Your task to perform on an android device: change notification settings in the gmail app Image 0: 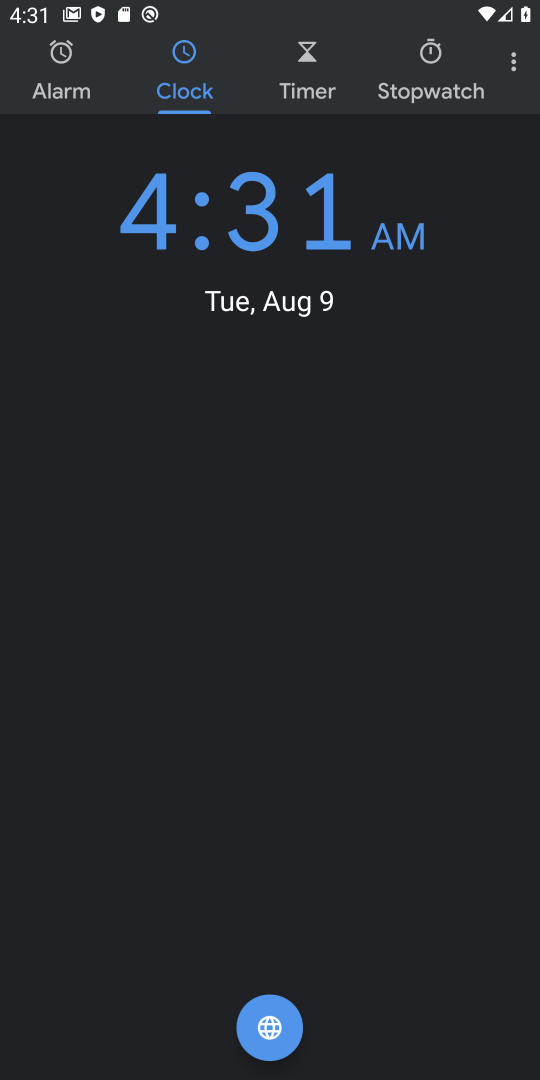
Step 0: press back button
Your task to perform on an android device: change notification settings in the gmail app Image 1: 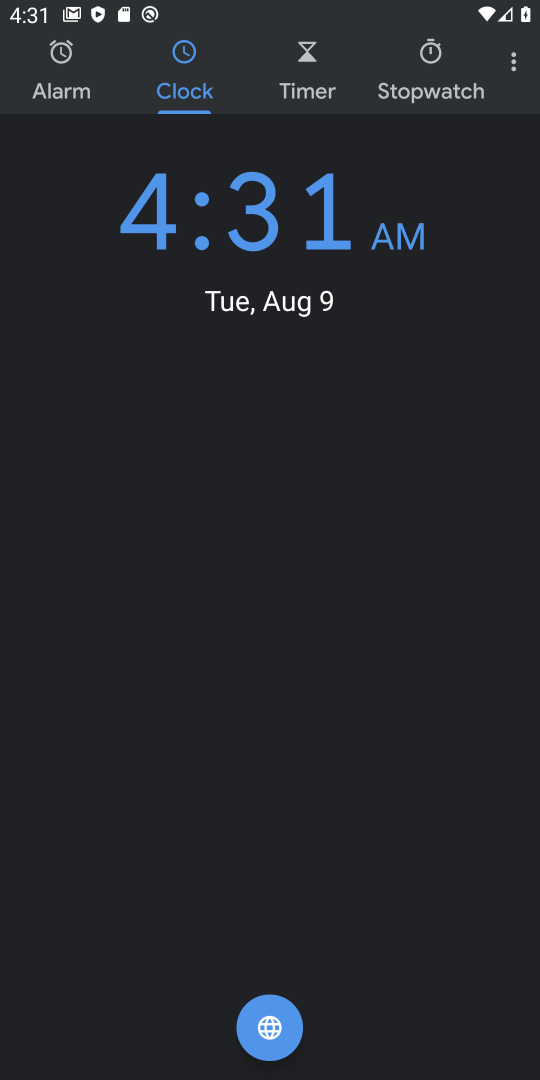
Step 1: press back button
Your task to perform on an android device: change notification settings in the gmail app Image 2: 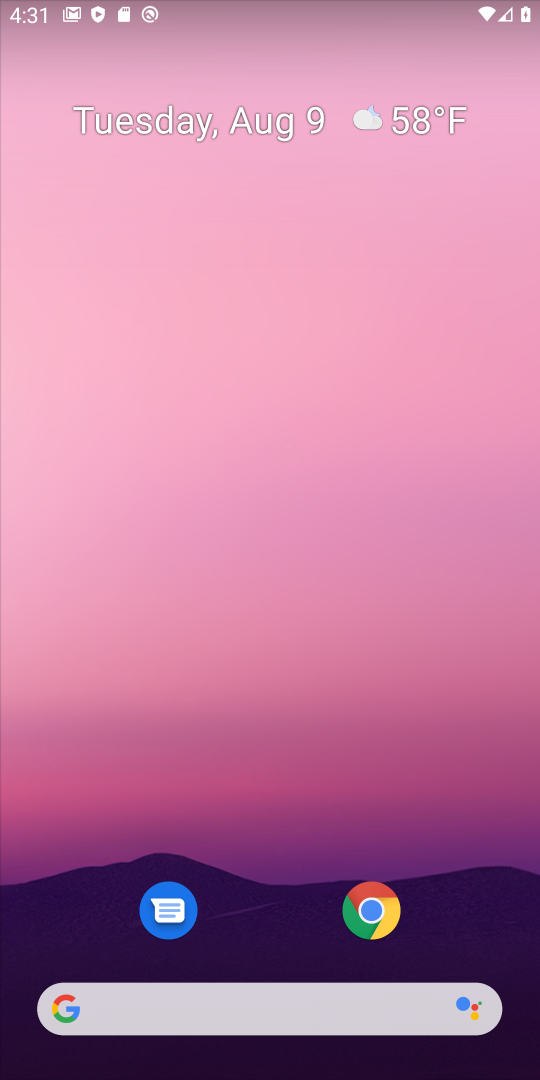
Step 2: press back button
Your task to perform on an android device: change notification settings in the gmail app Image 3: 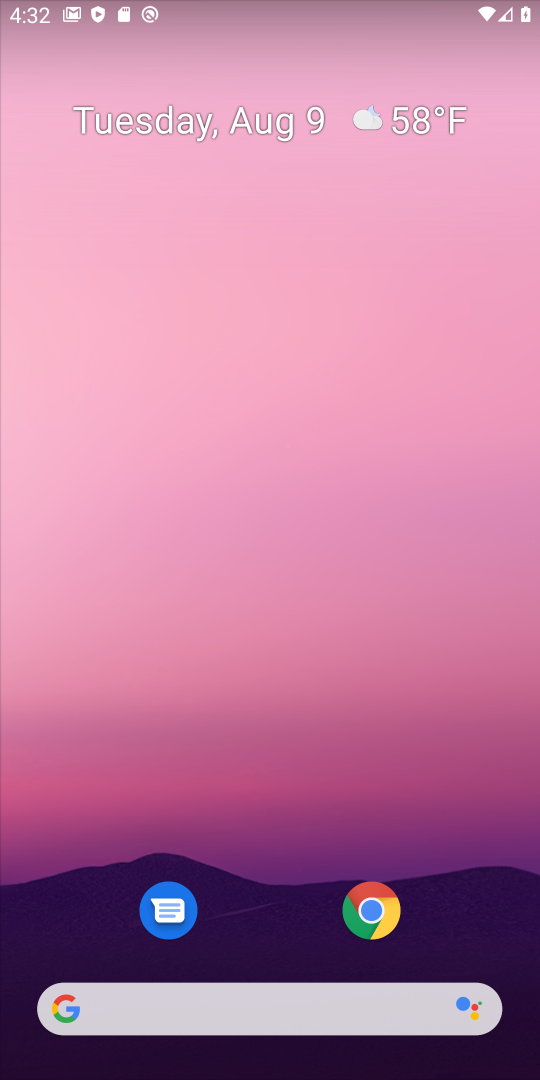
Step 3: drag from (303, 882) to (314, 480)
Your task to perform on an android device: change notification settings in the gmail app Image 4: 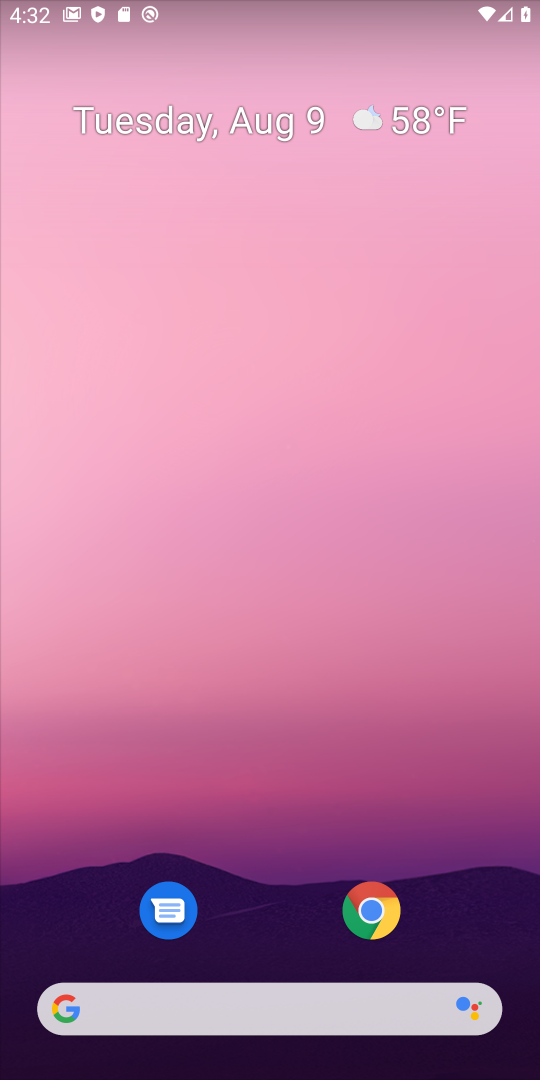
Step 4: drag from (279, 644) to (270, 454)
Your task to perform on an android device: change notification settings in the gmail app Image 5: 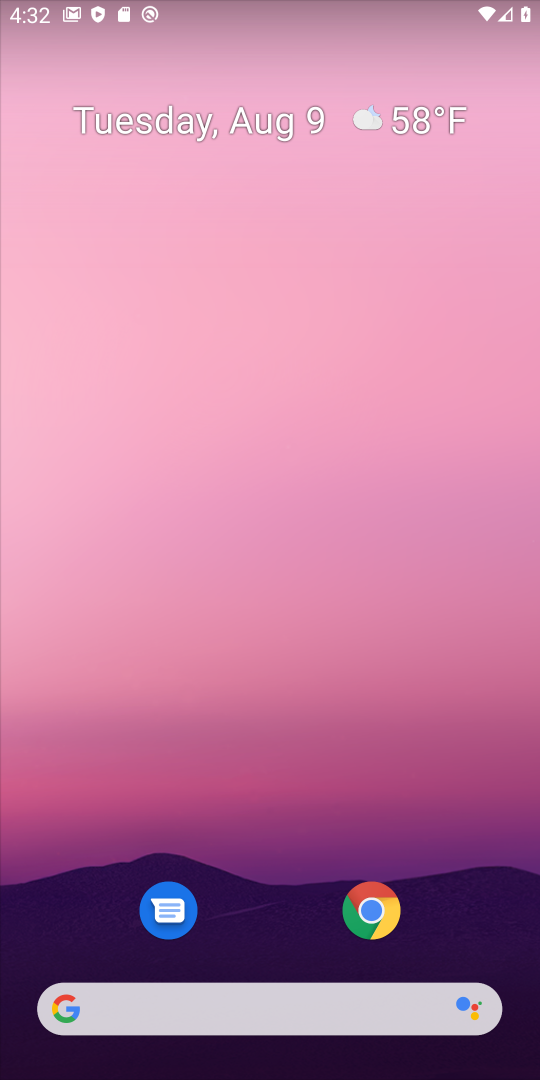
Step 5: drag from (310, 979) to (274, 483)
Your task to perform on an android device: change notification settings in the gmail app Image 6: 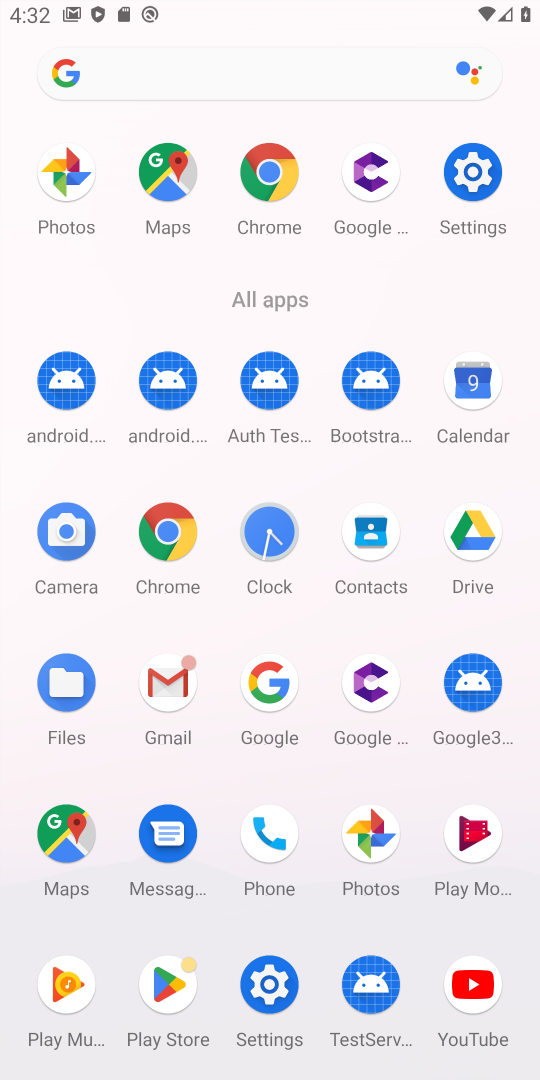
Step 6: click (161, 696)
Your task to perform on an android device: change notification settings in the gmail app Image 7: 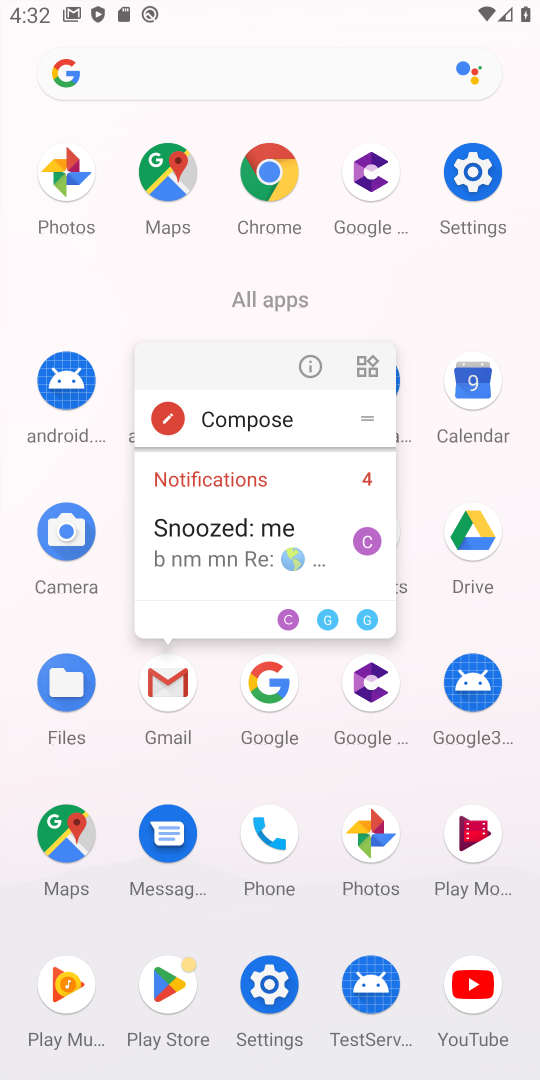
Step 7: drag from (142, 630) to (169, 680)
Your task to perform on an android device: change notification settings in the gmail app Image 8: 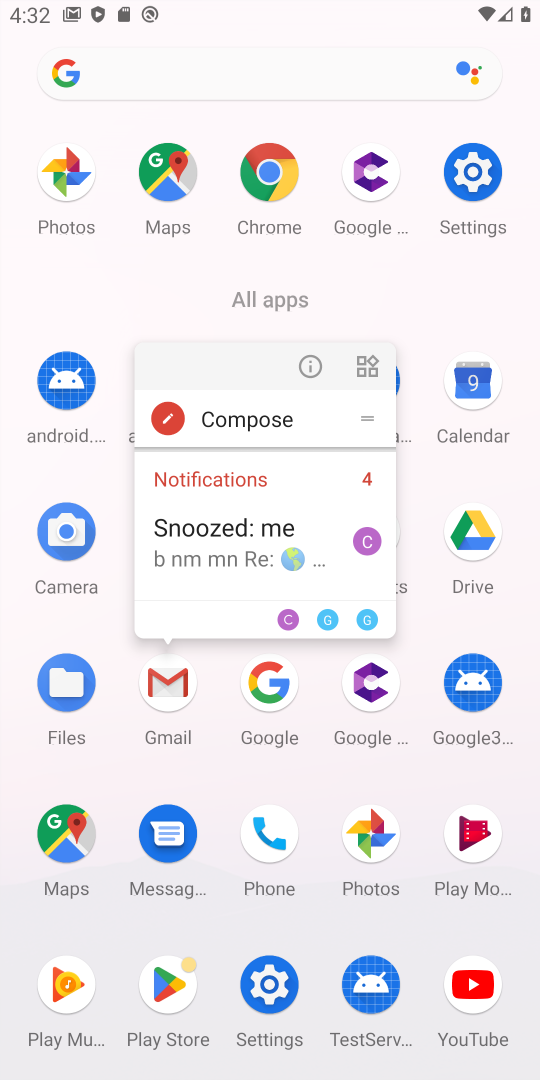
Step 8: click (169, 680)
Your task to perform on an android device: change notification settings in the gmail app Image 9: 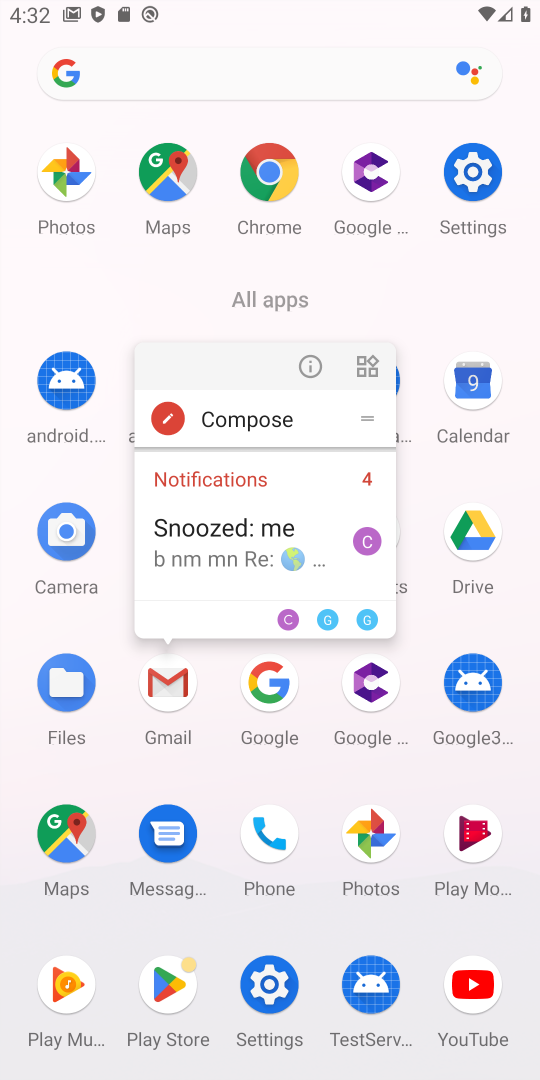
Step 9: click (168, 670)
Your task to perform on an android device: change notification settings in the gmail app Image 10: 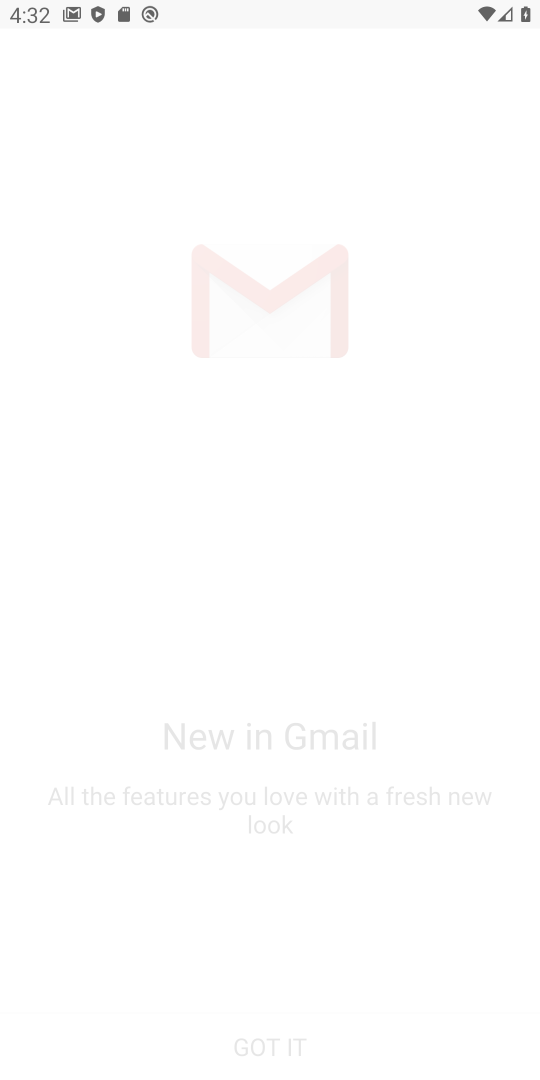
Step 10: click (168, 670)
Your task to perform on an android device: change notification settings in the gmail app Image 11: 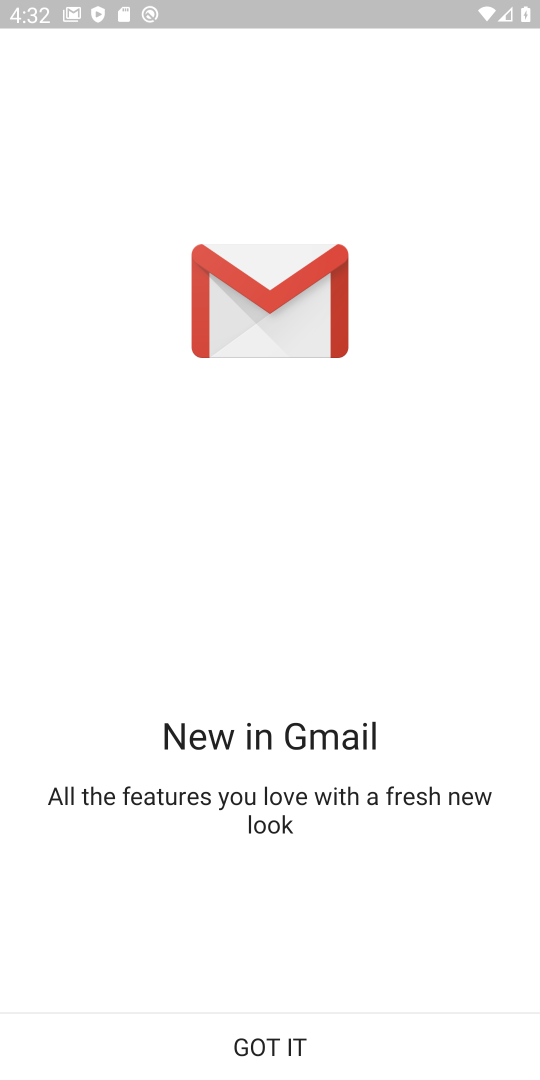
Step 11: click (286, 1027)
Your task to perform on an android device: change notification settings in the gmail app Image 12: 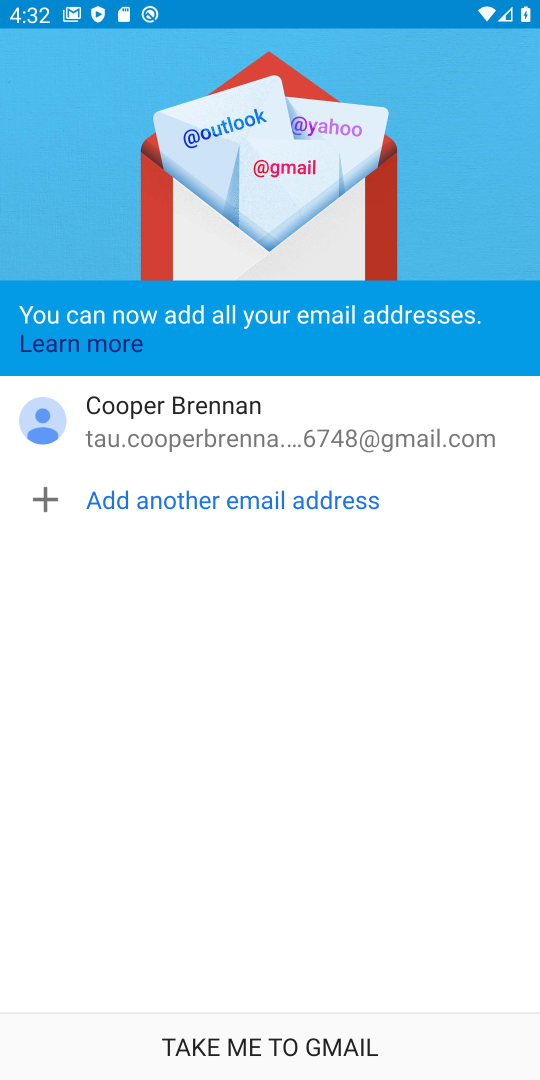
Step 12: press back button
Your task to perform on an android device: change notification settings in the gmail app Image 13: 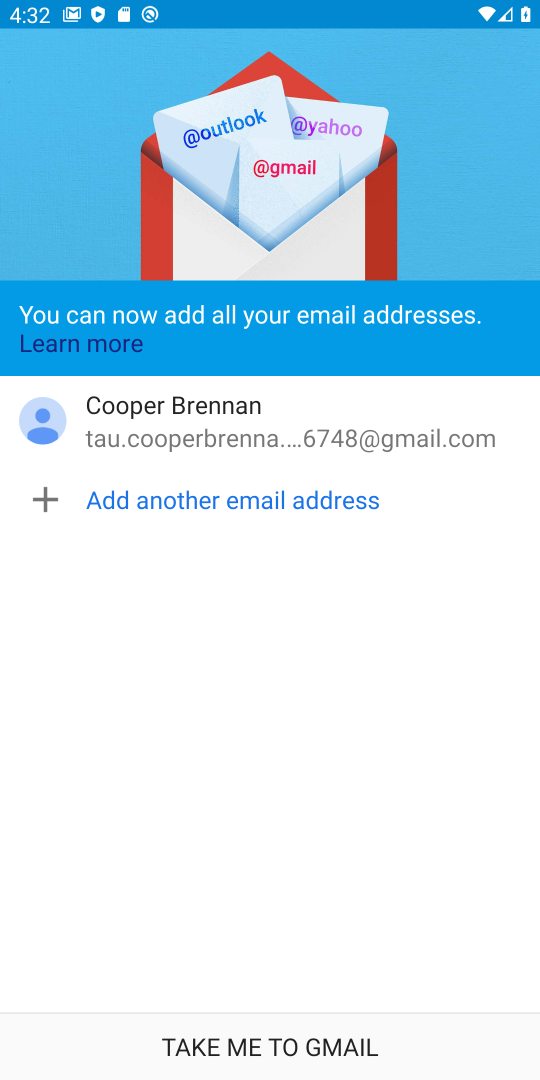
Step 13: press back button
Your task to perform on an android device: change notification settings in the gmail app Image 14: 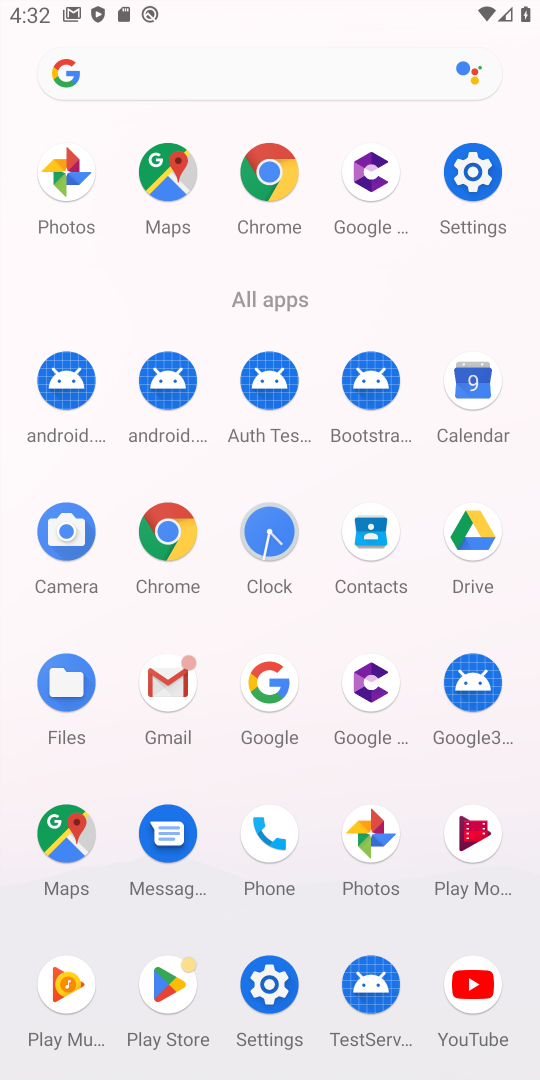
Step 14: click (167, 665)
Your task to perform on an android device: change notification settings in the gmail app Image 15: 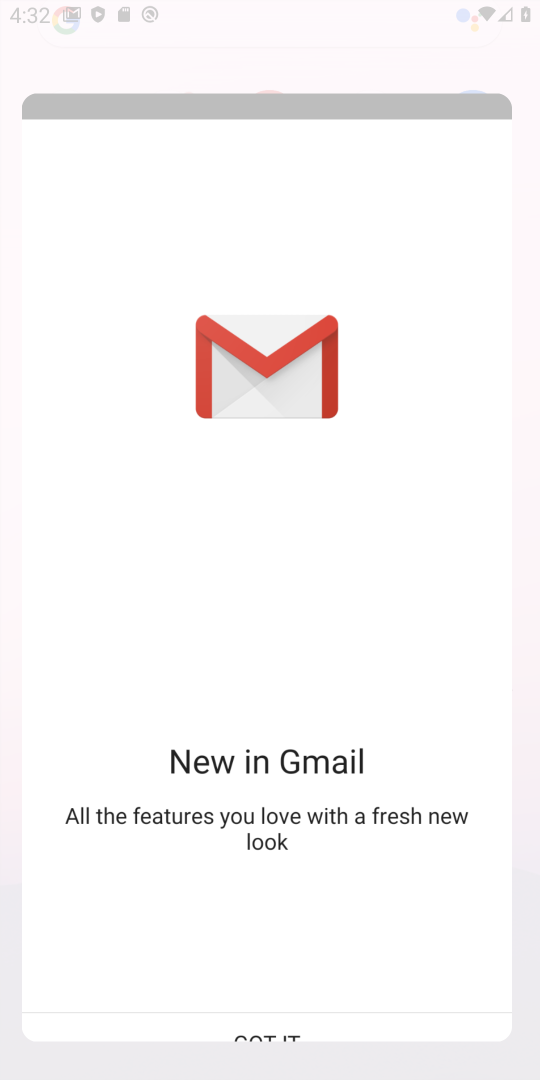
Step 15: click (167, 665)
Your task to perform on an android device: change notification settings in the gmail app Image 16: 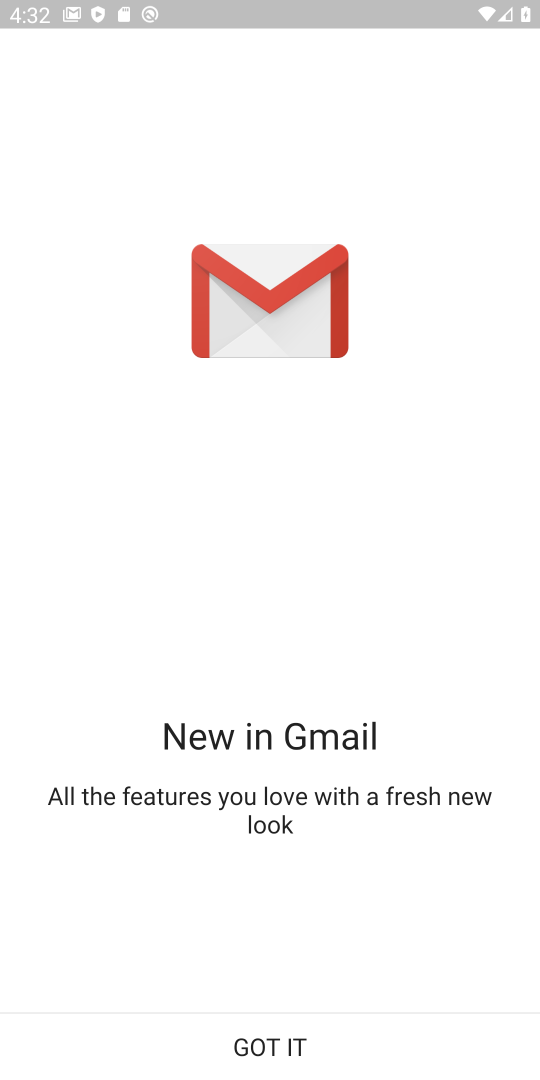
Step 16: click (170, 672)
Your task to perform on an android device: change notification settings in the gmail app Image 17: 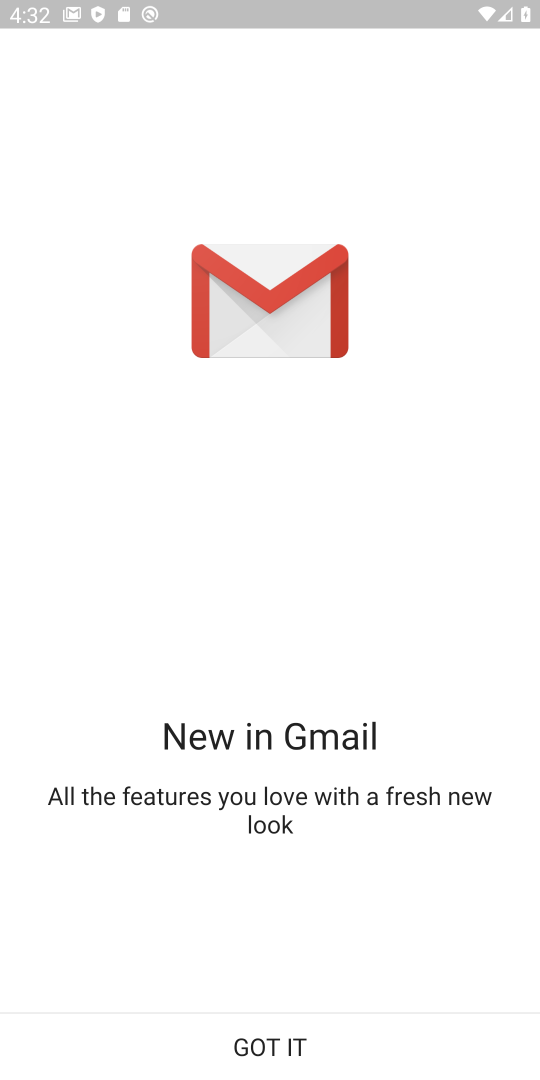
Step 17: click (170, 674)
Your task to perform on an android device: change notification settings in the gmail app Image 18: 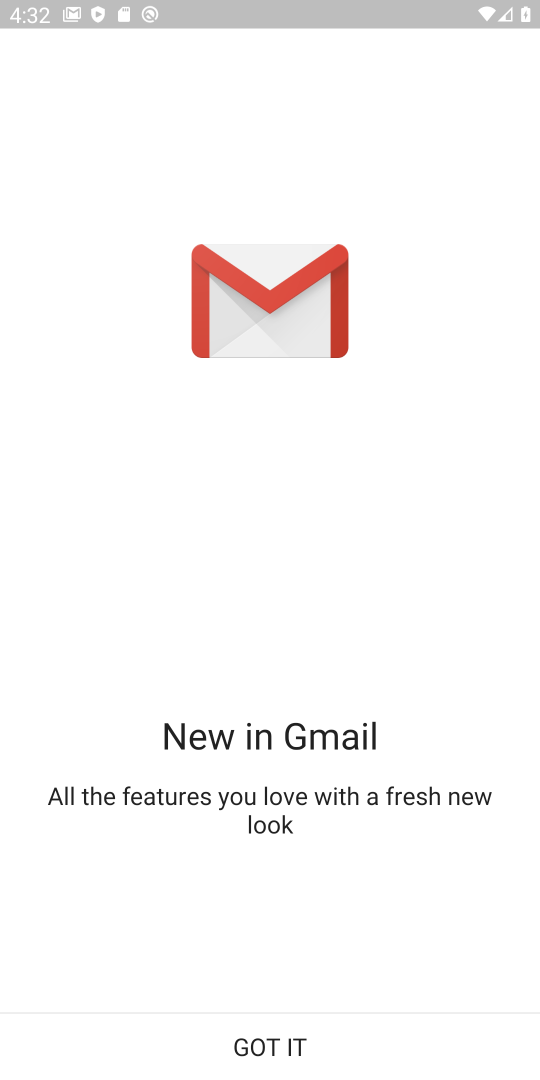
Step 18: click (290, 1051)
Your task to perform on an android device: change notification settings in the gmail app Image 19: 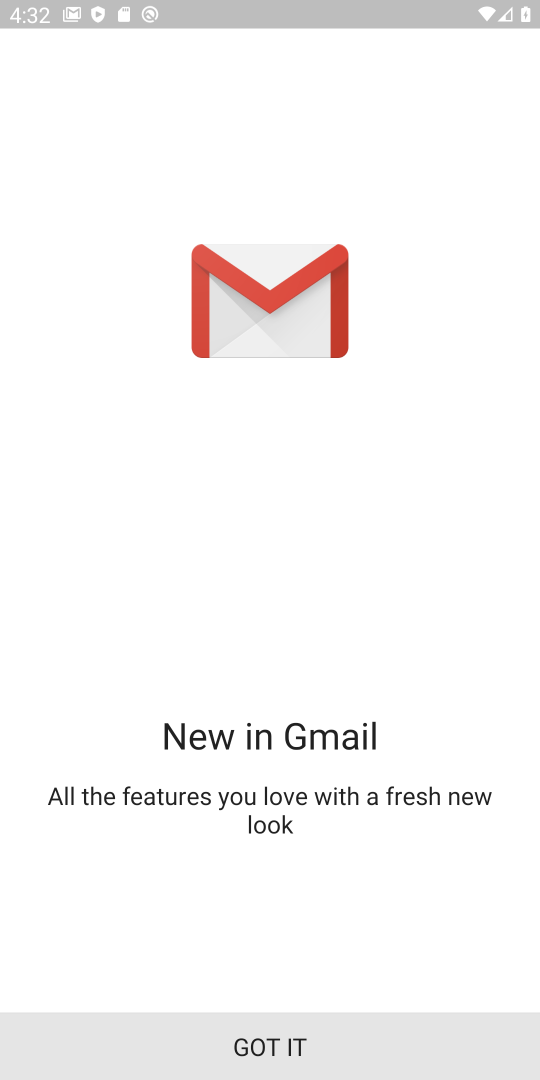
Step 19: click (301, 1051)
Your task to perform on an android device: change notification settings in the gmail app Image 20: 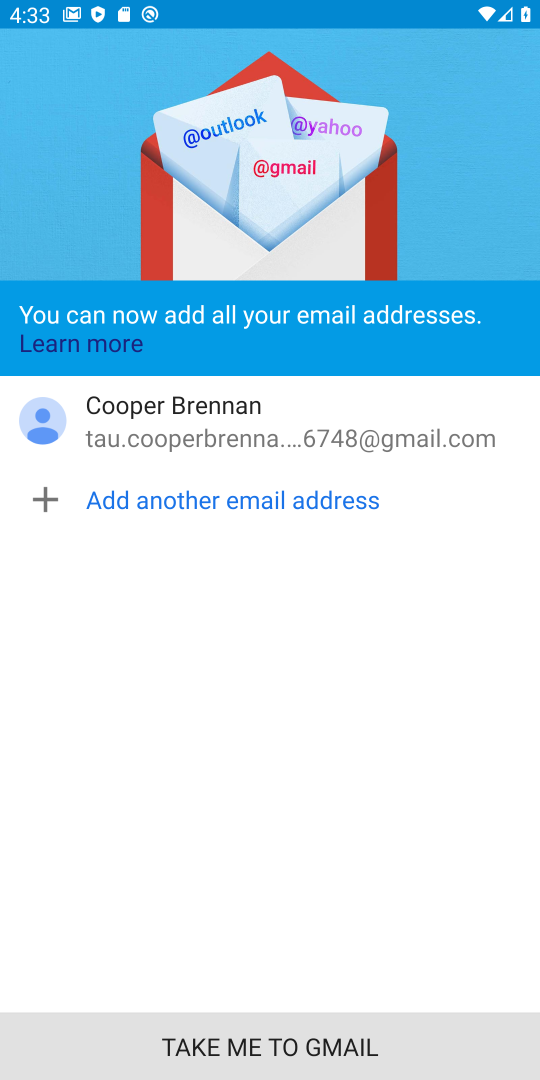
Step 20: click (304, 1055)
Your task to perform on an android device: change notification settings in the gmail app Image 21: 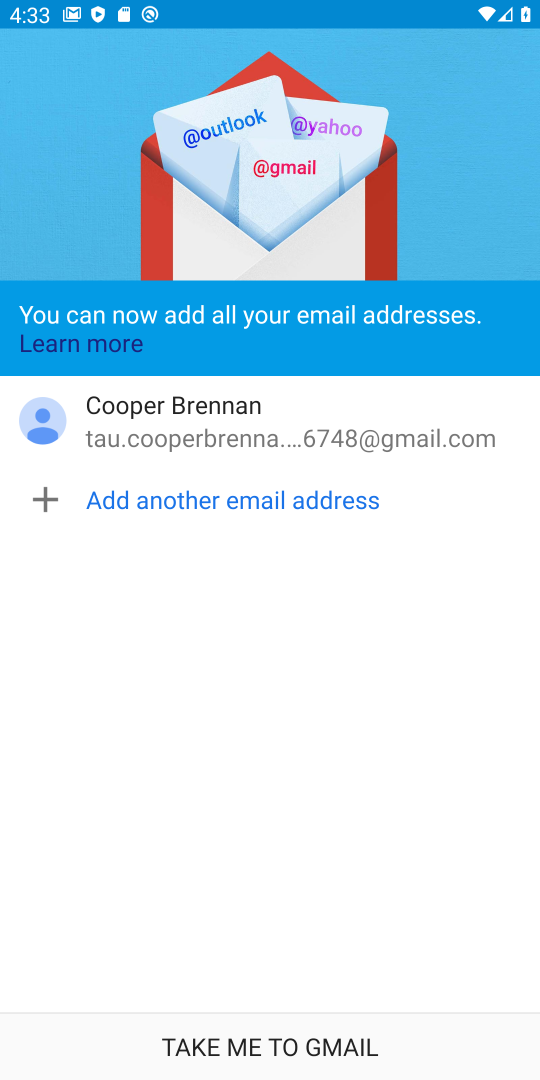
Step 21: click (304, 1055)
Your task to perform on an android device: change notification settings in the gmail app Image 22: 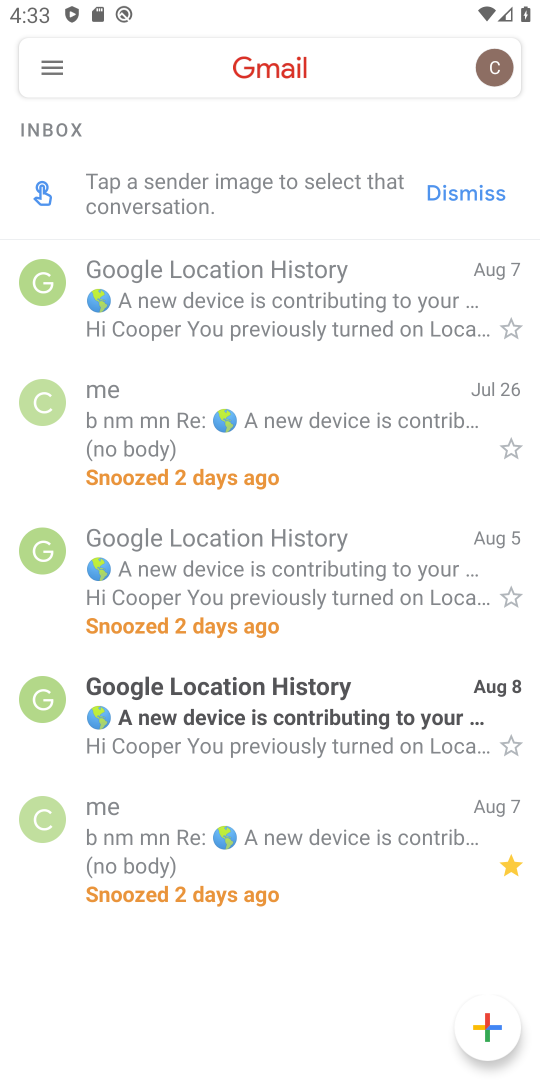
Step 22: drag from (47, 72) to (132, 912)
Your task to perform on an android device: change notification settings in the gmail app Image 23: 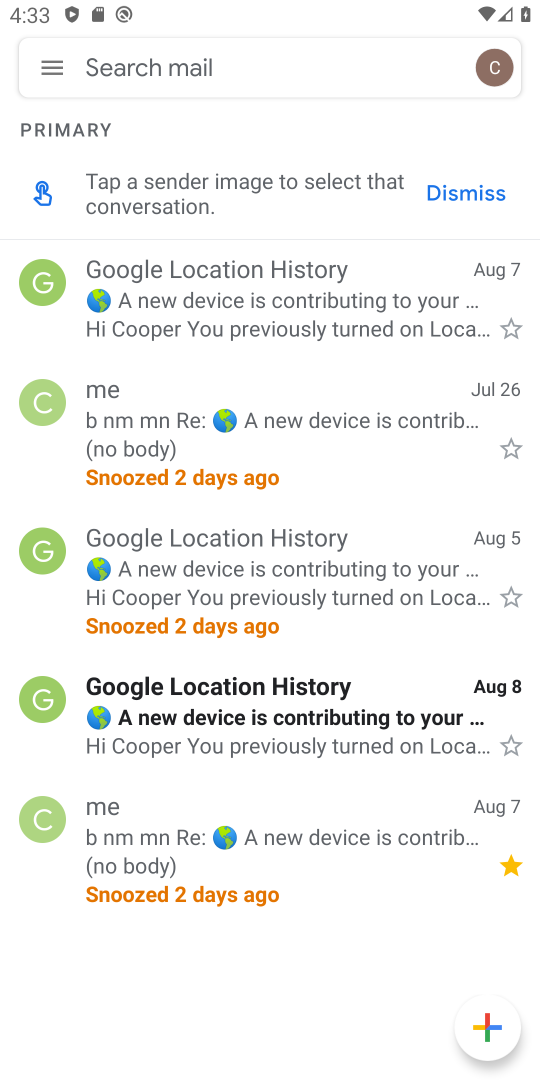
Step 23: drag from (58, 64) to (269, 863)
Your task to perform on an android device: change notification settings in the gmail app Image 24: 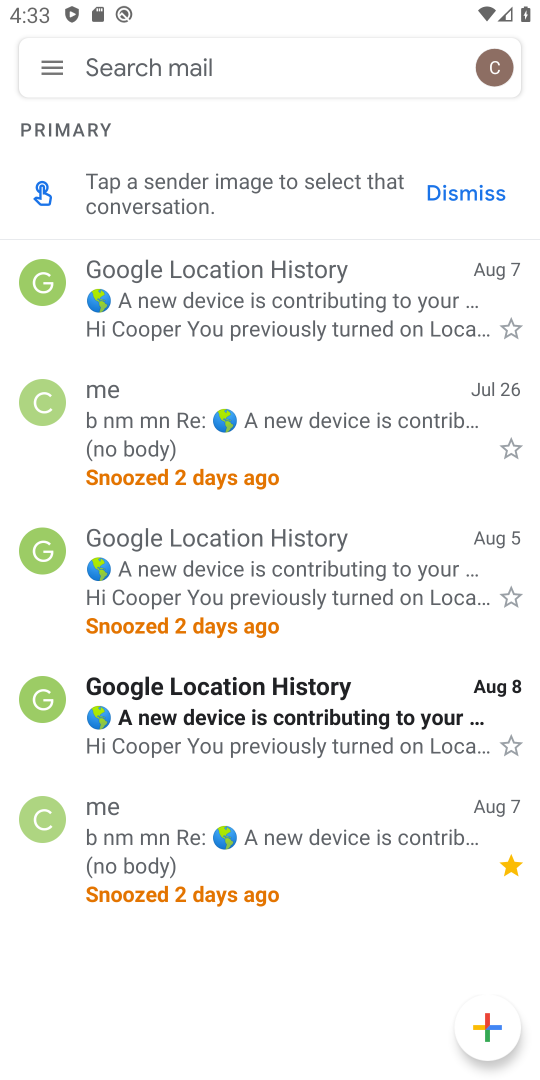
Step 24: click (64, 61)
Your task to perform on an android device: change notification settings in the gmail app Image 25: 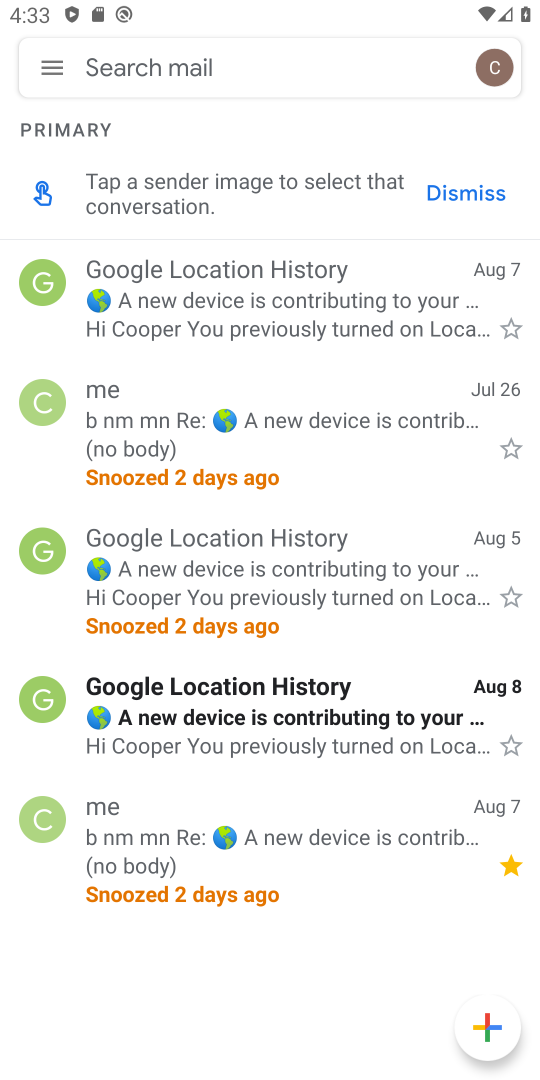
Step 25: click (63, 62)
Your task to perform on an android device: change notification settings in the gmail app Image 26: 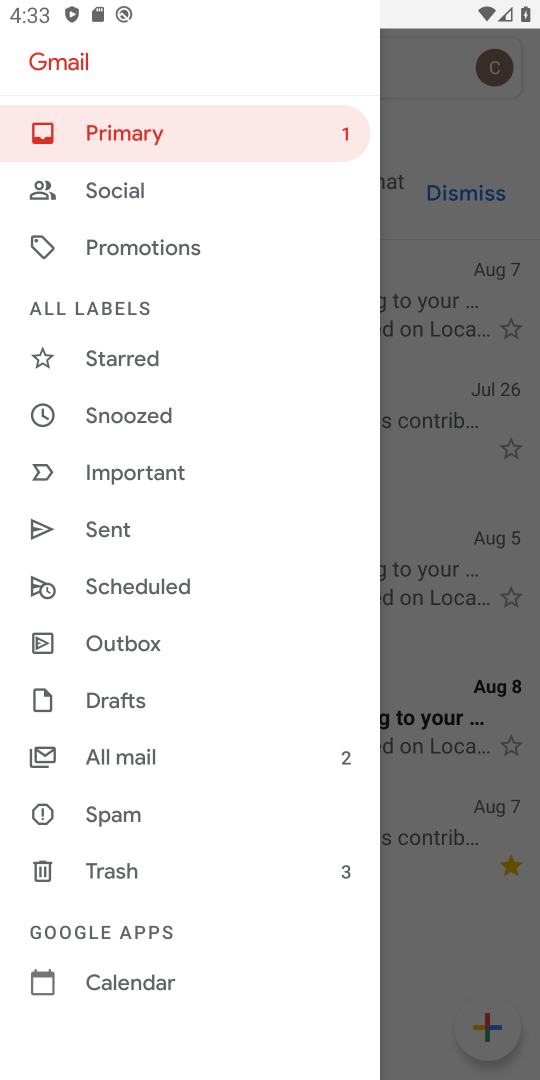
Step 26: drag from (152, 390) to (345, 551)
Your task to perform on an android device: change notification settings in the gmail app Image 27: 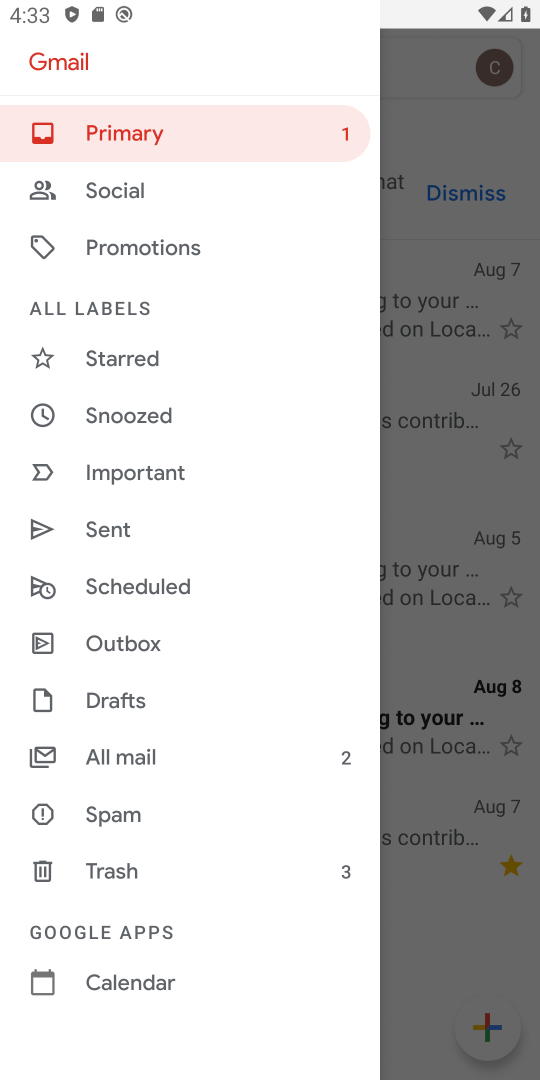
Step 27: drag from (144, 942) to (119, 484)
Your task to perform on an android device: change notification settings in the gmail app Image 28: 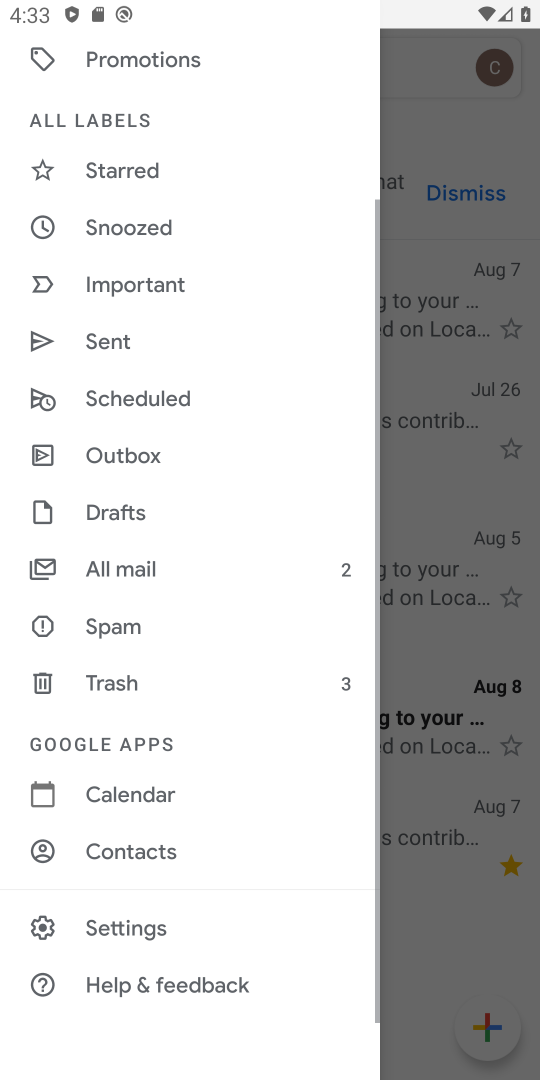
Step 28: drag from (144, 751) to (103, 177)
Your task to perform on an android device: change notification settings in the gmail app Image 29: 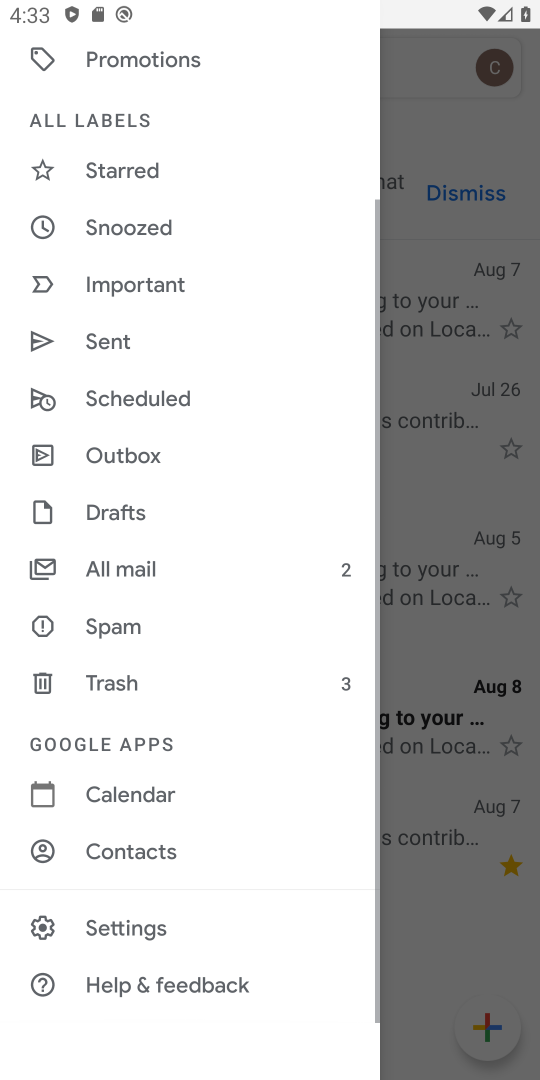
Step 29: drag from (136, 504) to (136, 273)
Your task to perform on an android device: change notification settings in the gmail app Image 30: 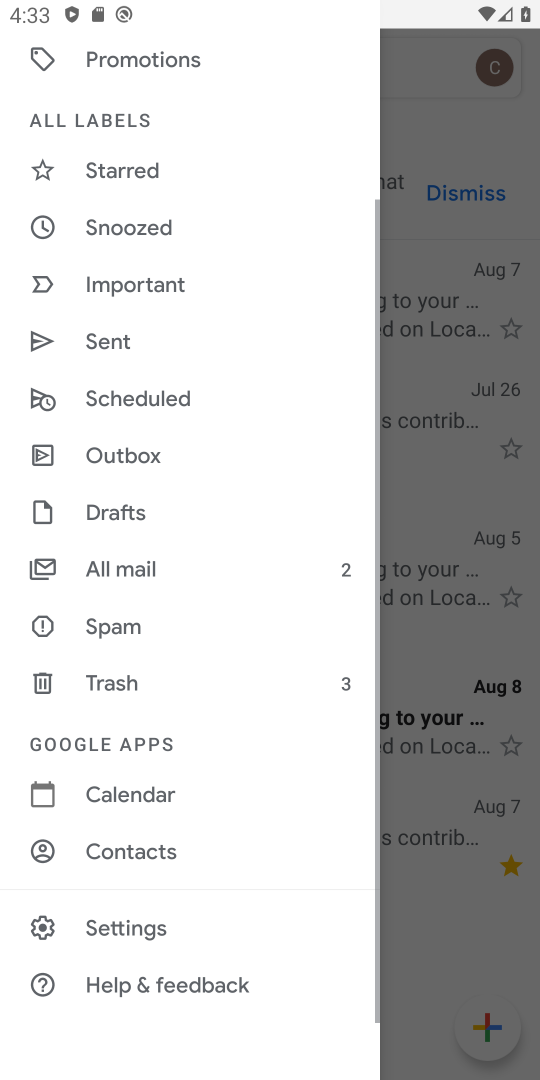
Step 30: click (115, 926)
Your task to perform on an android device: change notification settings in the gmail app Image 31: 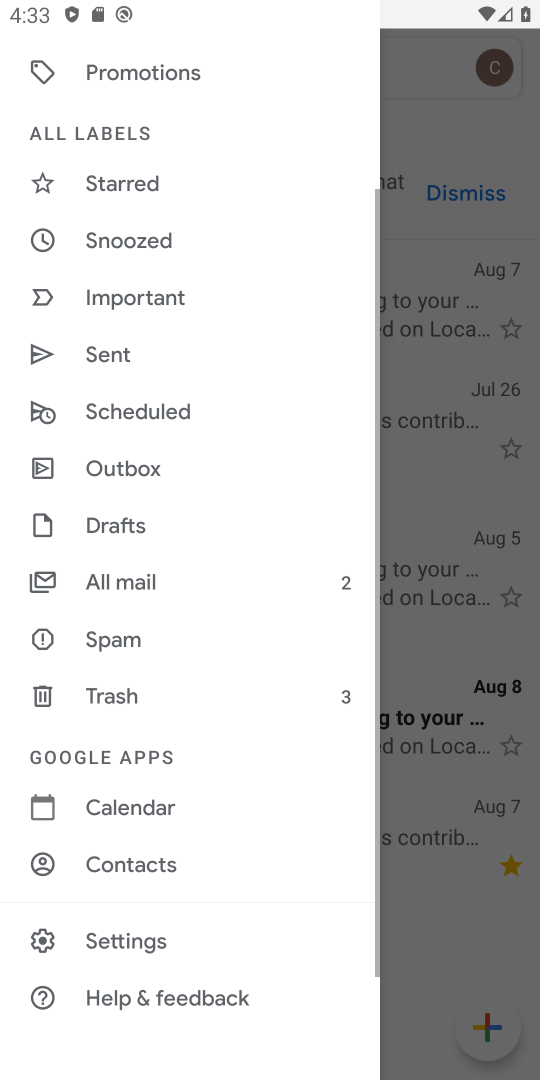
Step 31: click (144, 926)
Your task to perform on an android device: change notification settings in the gmail app Image 32: 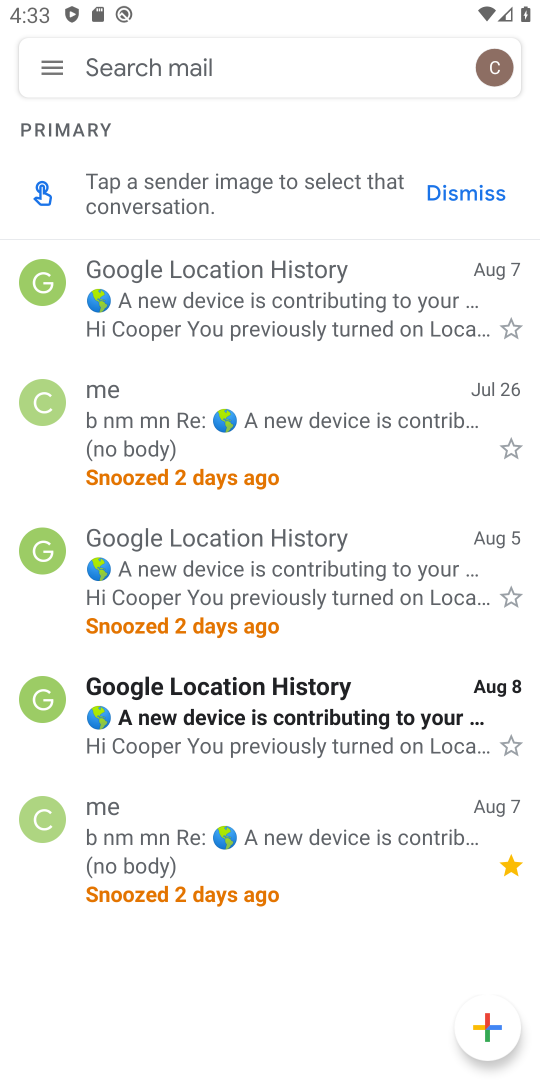
Step 32: click (156, 916)
Your task to perform on an android device: change notification settings in the gmail app Image 33: 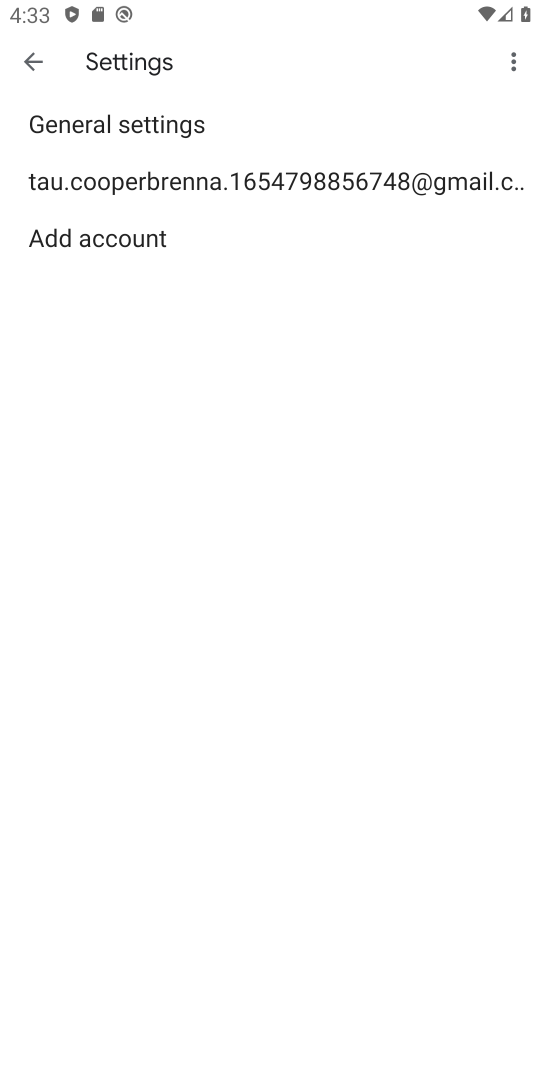
Step 33: click (135, 168)
Your task to perform on an android device: change notification settings in the gmail app Image 34: 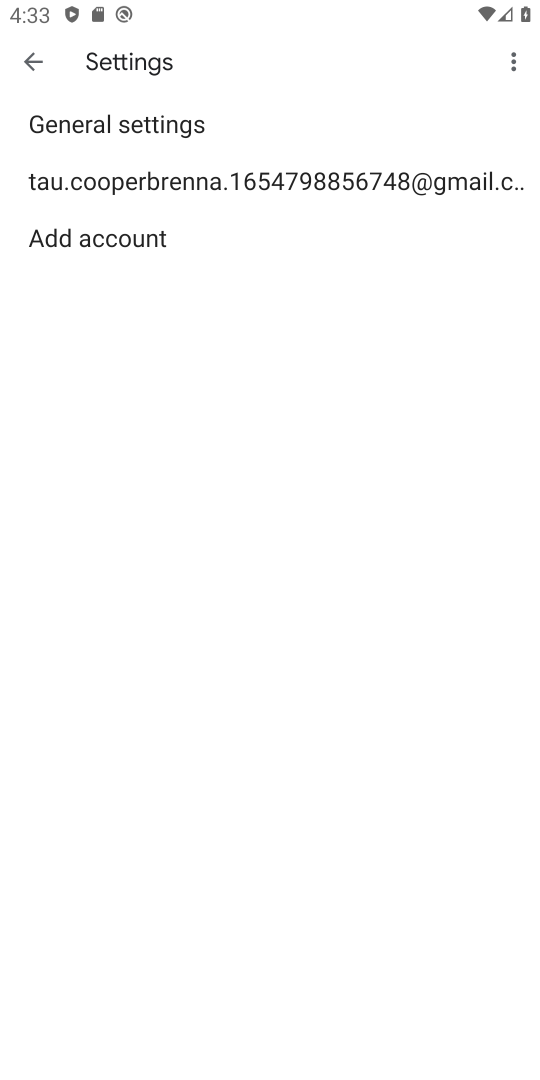
Step 34: click (135, 168)
Your task to perform on an android device: change notification settings in the gmail app Image 35: 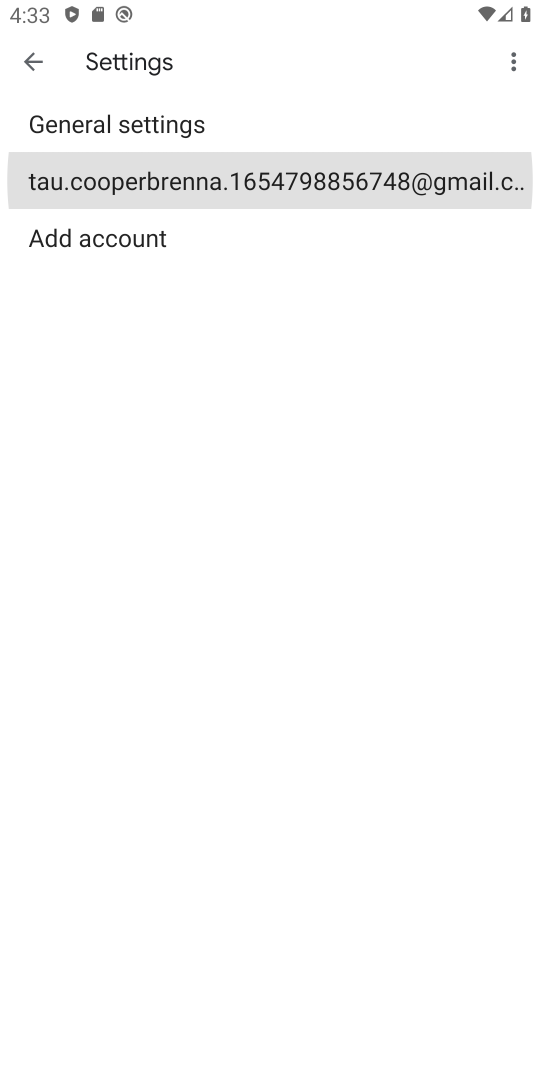
Step 35: click (134, 170)
Your task to perform on an android device: change notification settings in the gmail app Image 36: 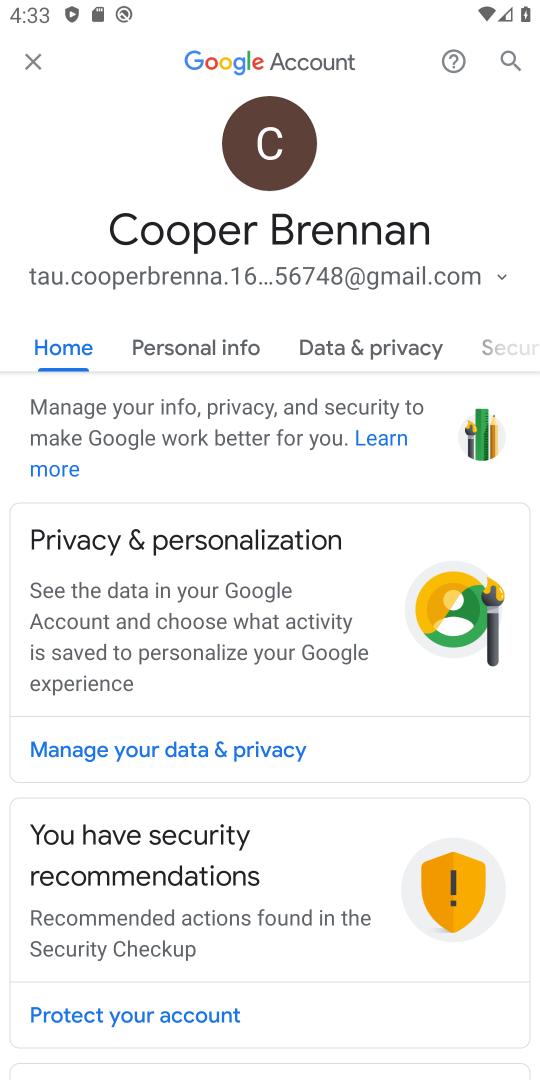
Step 36: press back button
Your task to perform on an android device: change notification settings in the gmail app Image 37: 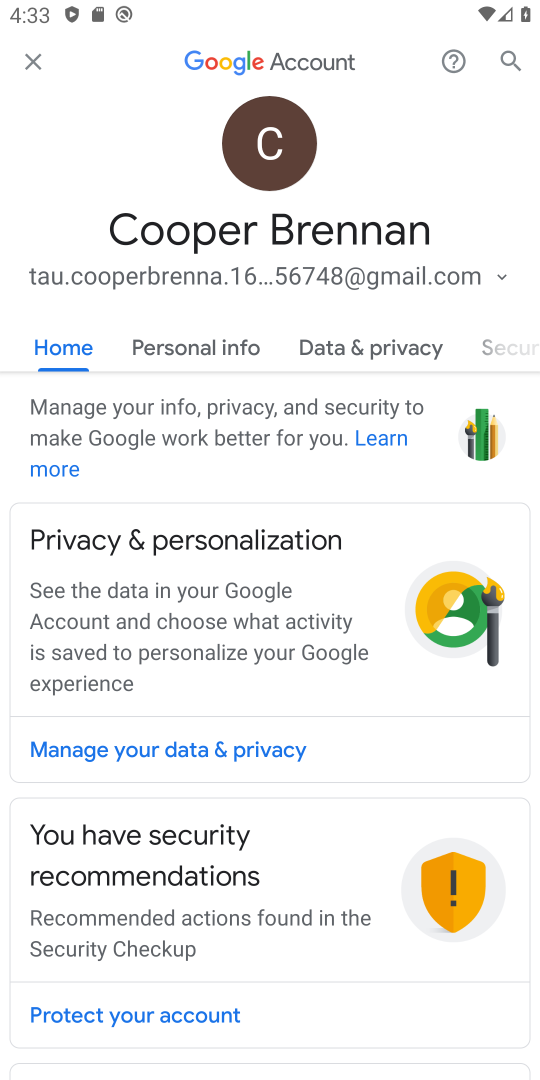
Step 37: click (30, 52)
Your task to perform on an android device: change notification settings in the gmail app Image 38: 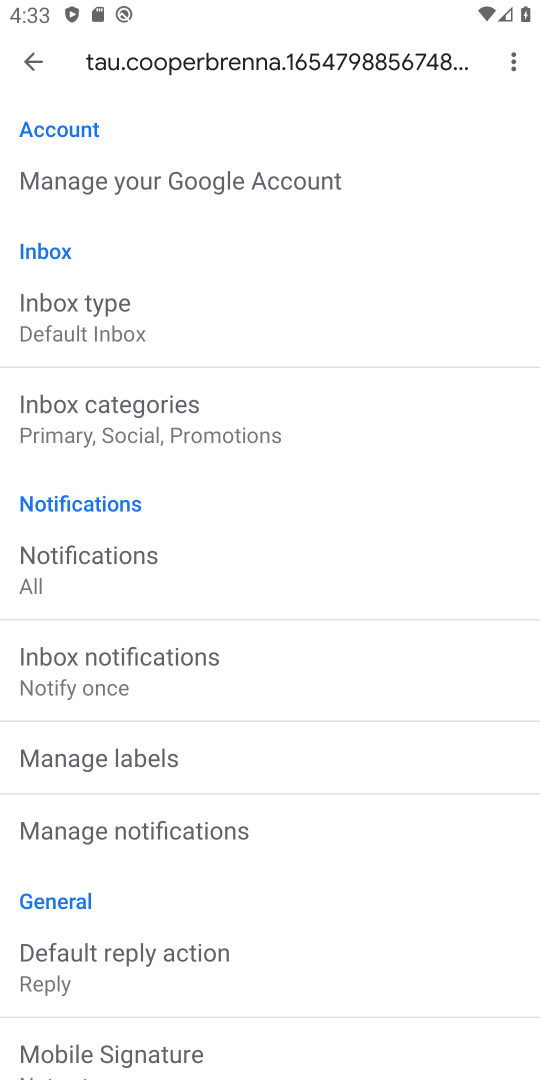
Step 38: click (69, 565)
Your task to perform on an android device: change notification settings in the gmail app Image 39: 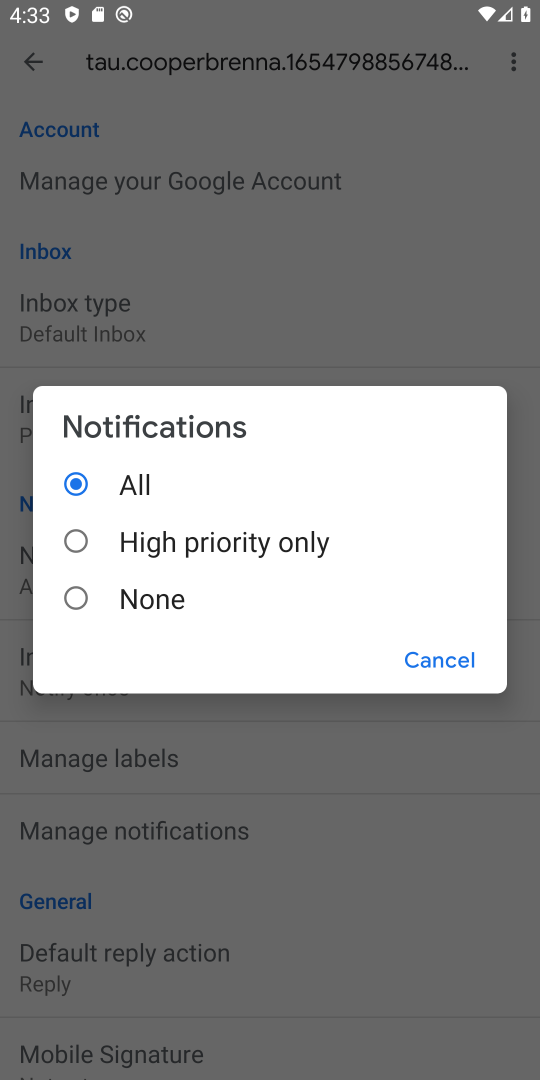
Step 39: click (55, 524)
Your task to perform on an android device: change notification settings in the gmail app Image 40: 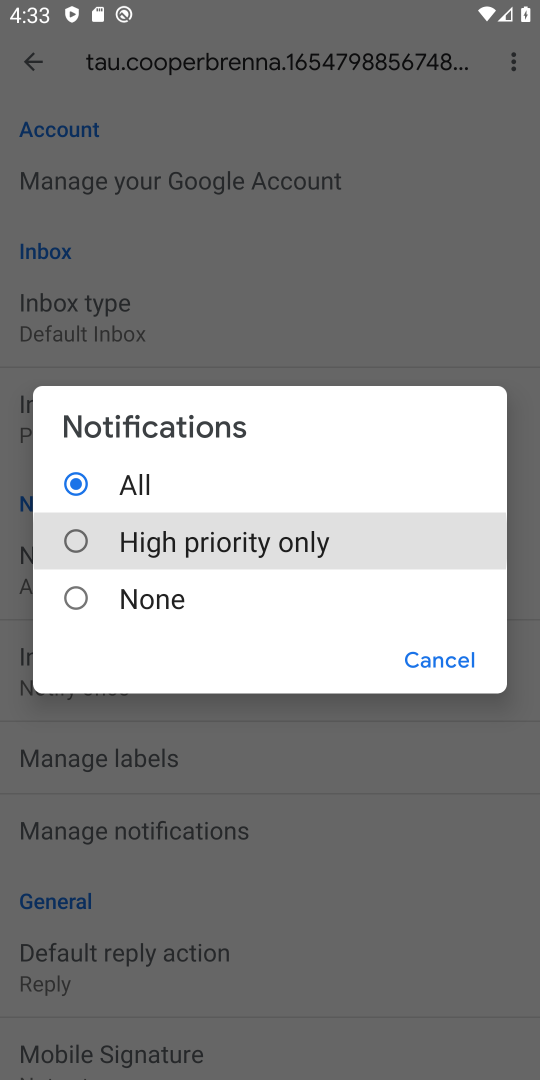
Step 40: click (77, 546)
Your task to perform on an android device: change notification settings in the gmail app Image 41: 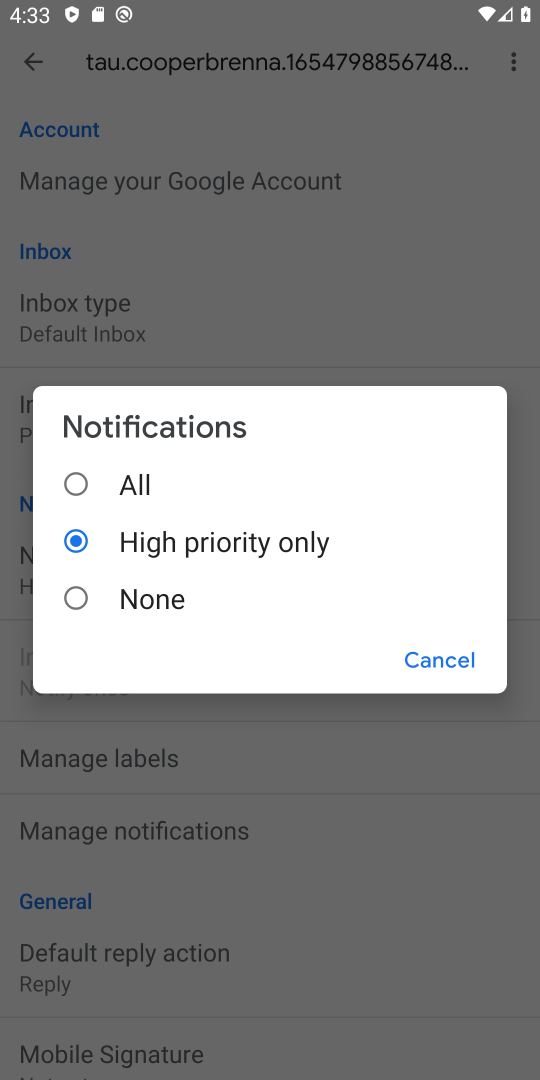
Step 41: task complete